Your task to perform on an android device: delete the emails in spam in the gmail app Image 0: 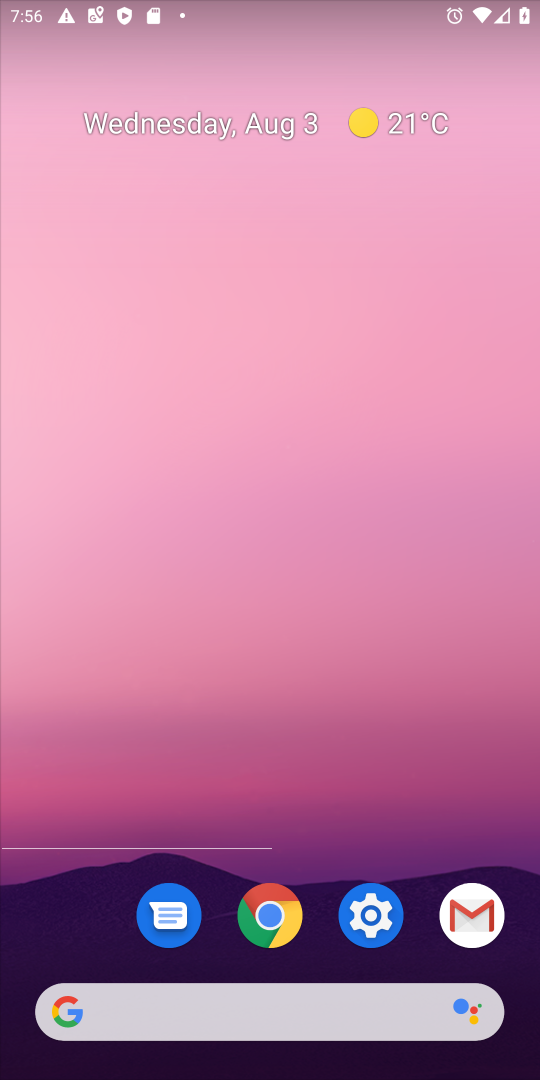
Step 0: press home button
Your task to perform on an android device: delete the emails in spam in the gmail app Image 1: 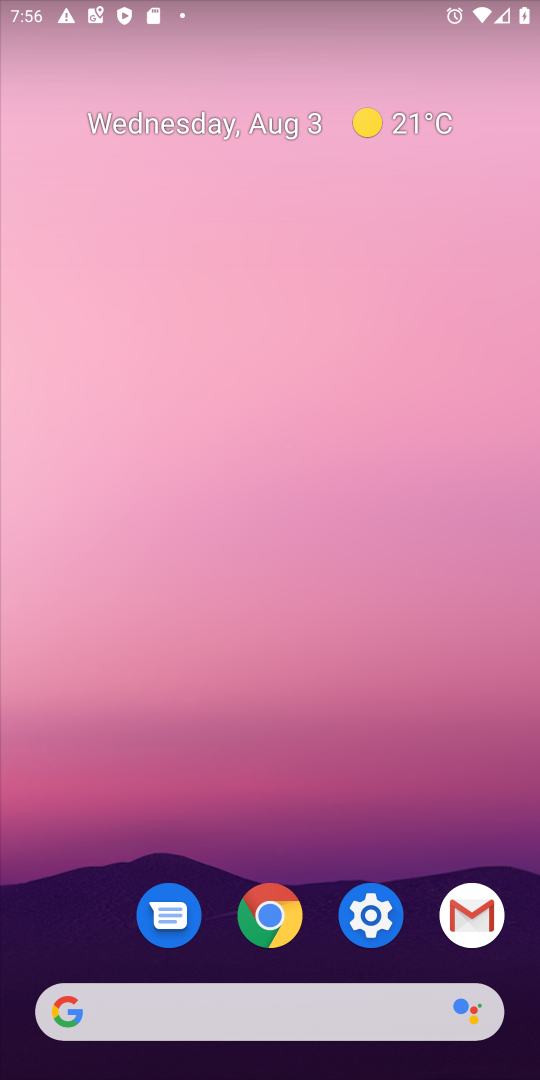
Step 1: drag from (358, 1046) to (218, 387)
Your task to perform on an android device: delete the emails in spam in the gmail app Image 2: 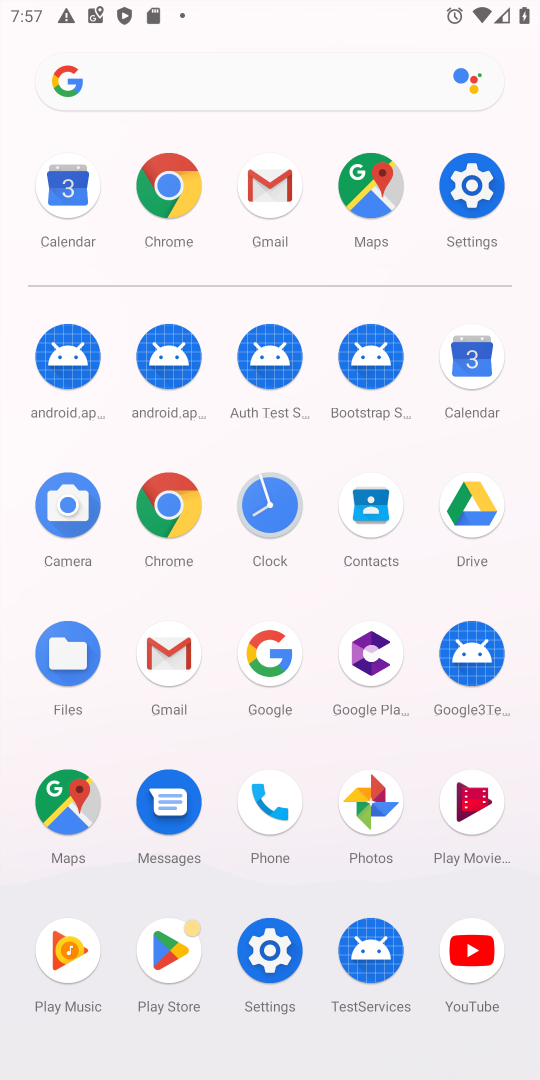
Step 2: click (155, 674)
Your task to perform on an android device: delete the emails in spam in the gmail app Image 3: 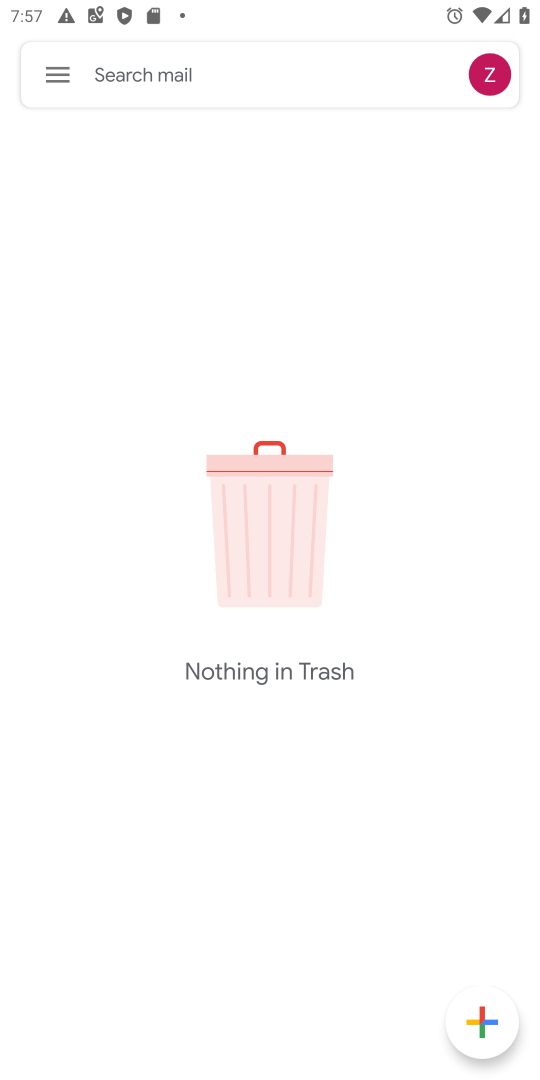
Step 3: click (63, 72)
Your task to perform on an android device: delete the emails in spam in the gmail app Image 4: 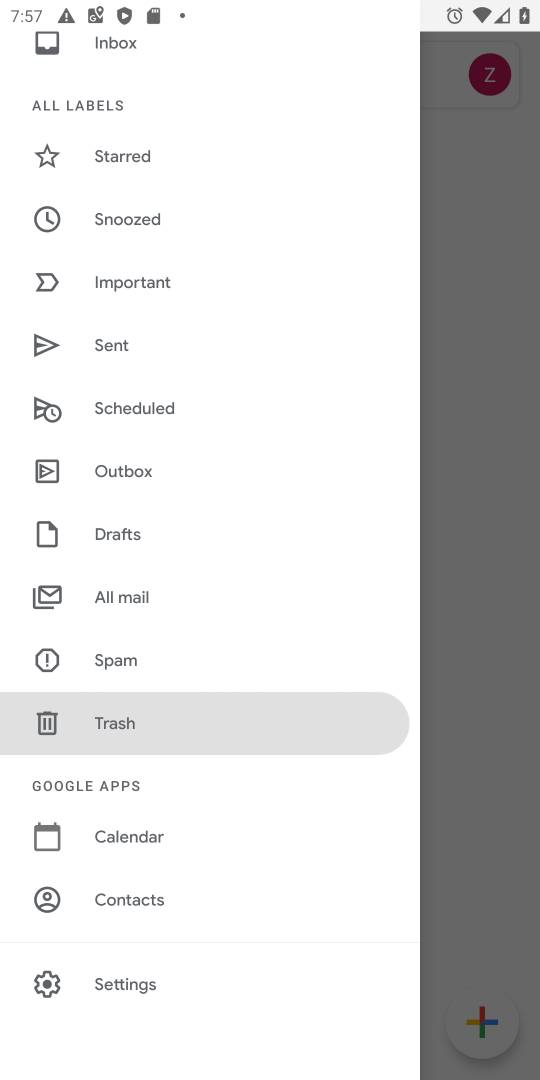
Step 4: click (128, 655)
Your task to perform on an android device: delete the emails in spam in the gmail app Image 5: 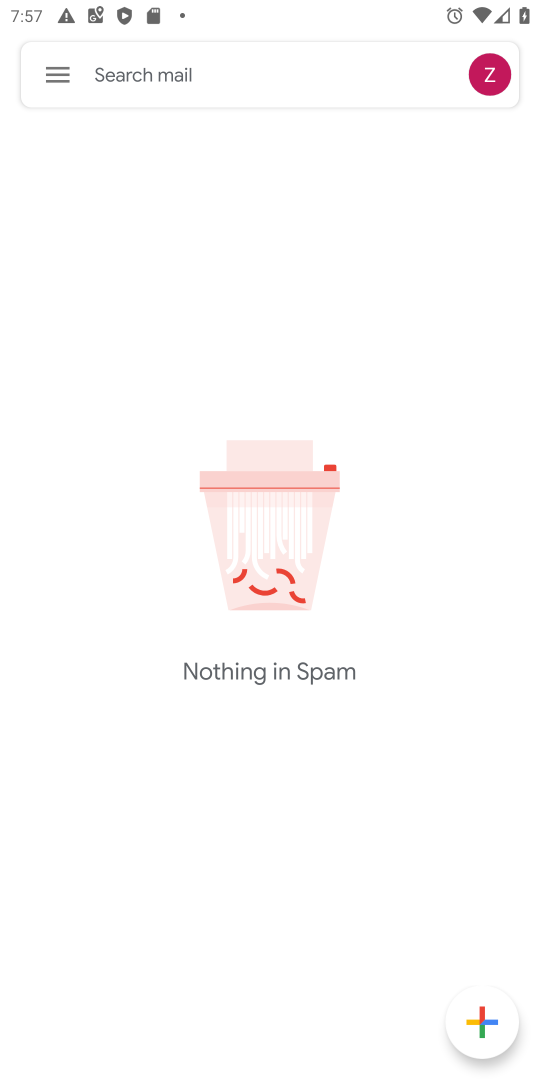
Step 5: task complete